Your task to perform on an android device: empty trash in google photos Image 0: 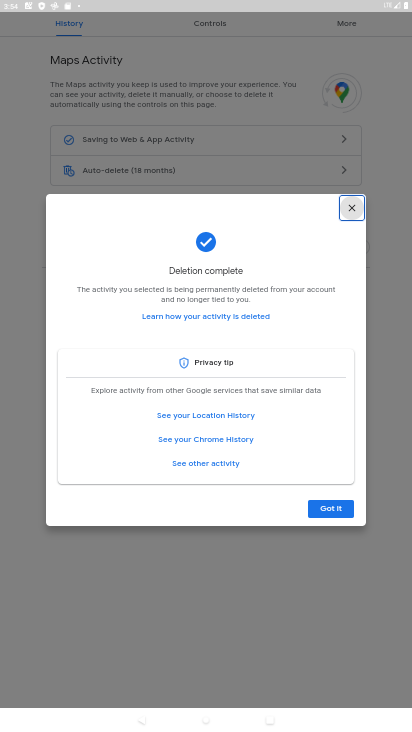
Step 0: press home button
Your task to perform on an android device: empty trash in google photos Image 1: 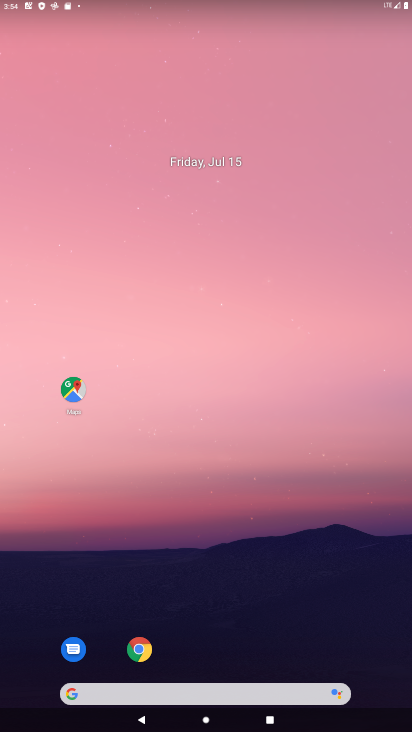
Step 1: drag from (314, 440) to (294, 77)
Your task to perform on an android device: empty trash in google photos Image 2: 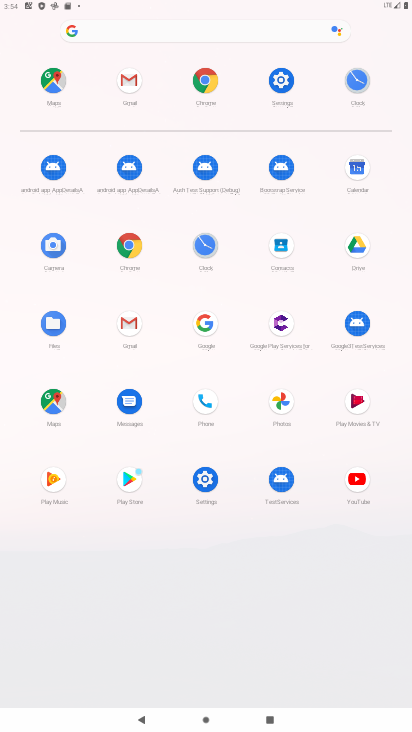
Step 2: click (281, 402)
Your task to perform on an android device: empty trash in google photos Image 3: 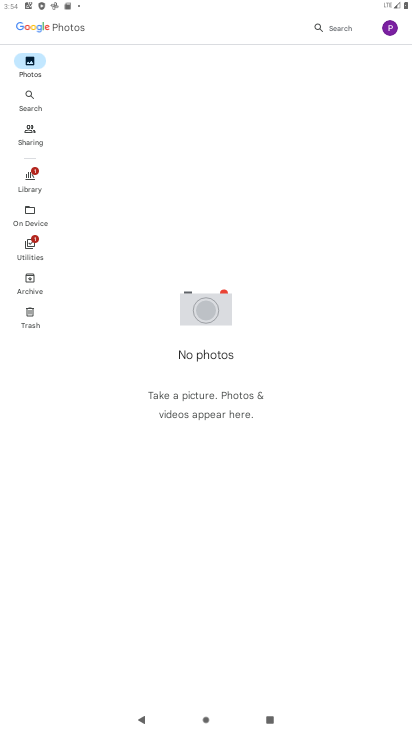
Step 3: click (28, 312)
Your task to perform on an android device: empty trash in google photos Image 4: 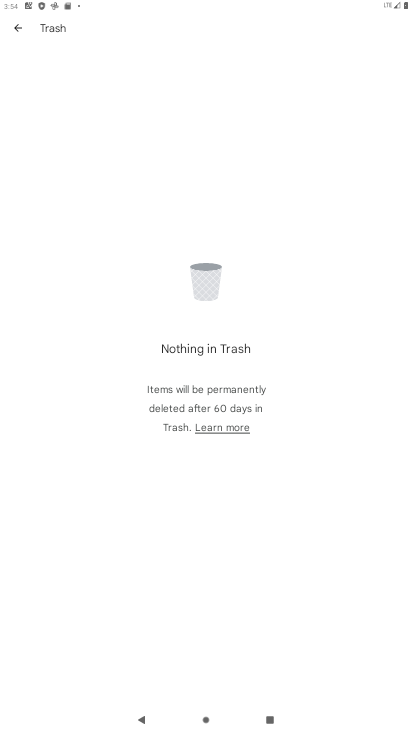
Step 4: task complete